Your task to perform on an android device: toggle translation in the chrome app Image 0: 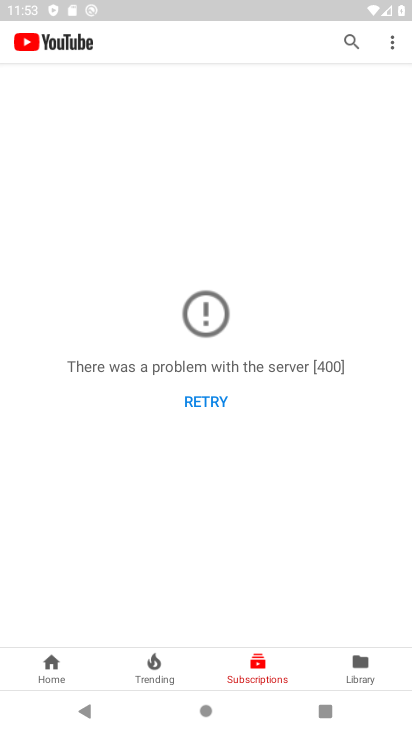
Step 0: press back button
Your task to perform on an android device: toggle translation in the chrome app Image 1: 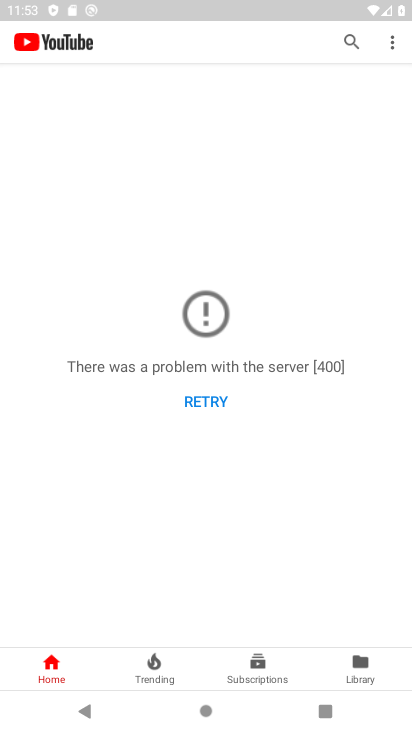
Step 1: press back button
Your task to perform on an android device: toggle translation in the chrome app Image 2: 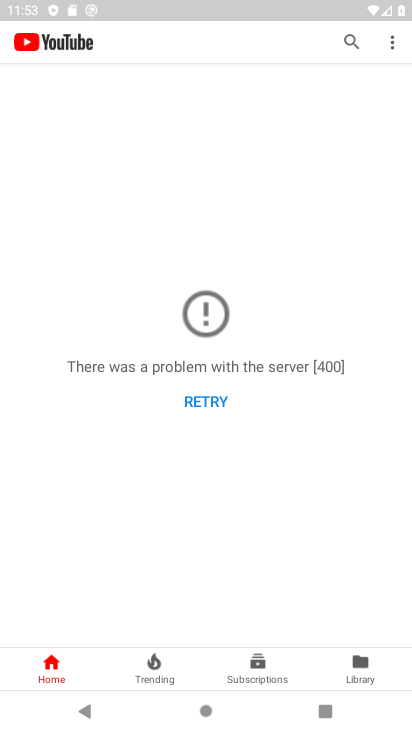
Step 2: press back button
Your task to perform on an android device: toggle translation in the chrome app Image 3: 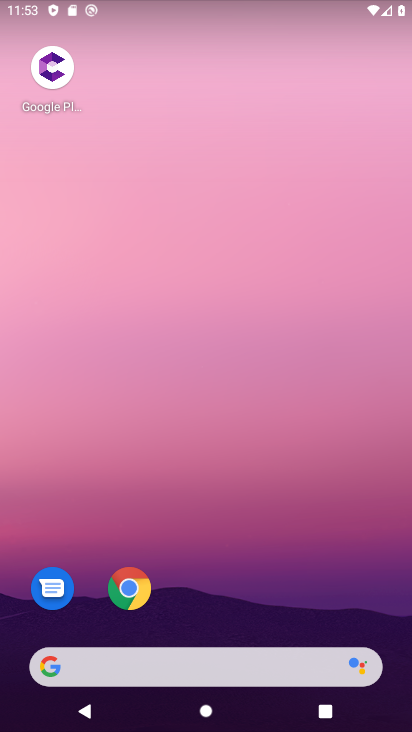
Step 3: drag from (252, 541) to (199, 117)
Your task to perform on an android device: toggle translation in the chrome app Image 4: 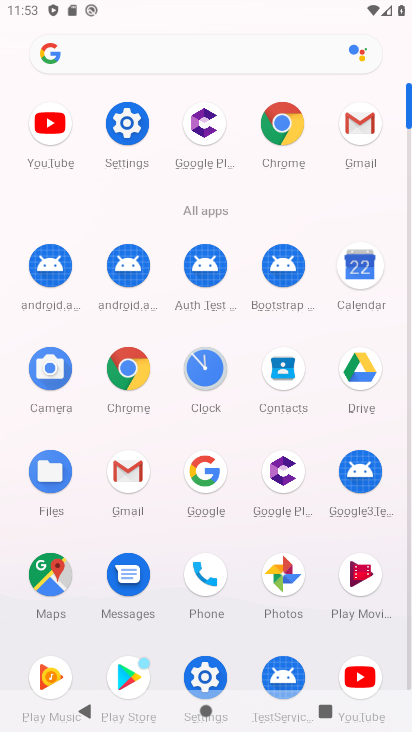
Step 4: click (284, 130)
Your task to perform on an android device: toggle translation in the chrome app Image 5: 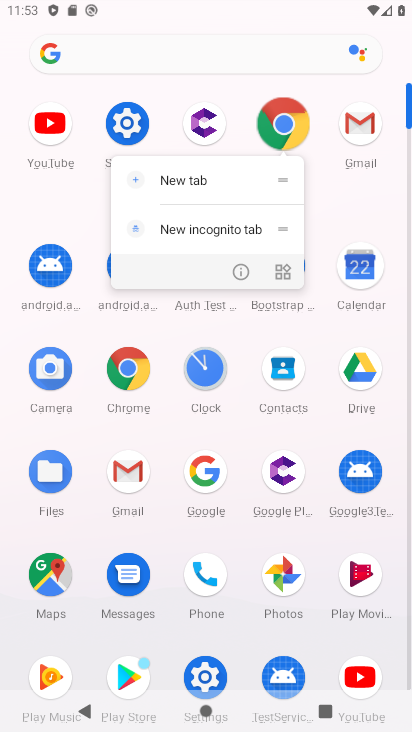
Step 5: click (284, 130)
Your task to perform on an android device: toggle translation in the chrome app Image 6: 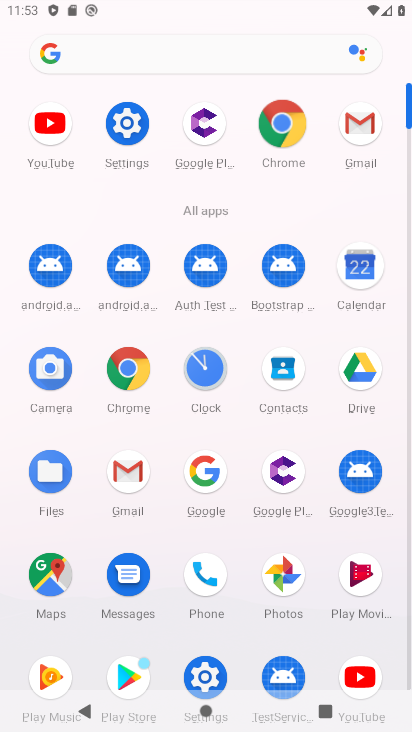
Step 6: click (284, 130)
Your task to perform on an android device: toggle translation in the chrome app Image 7: 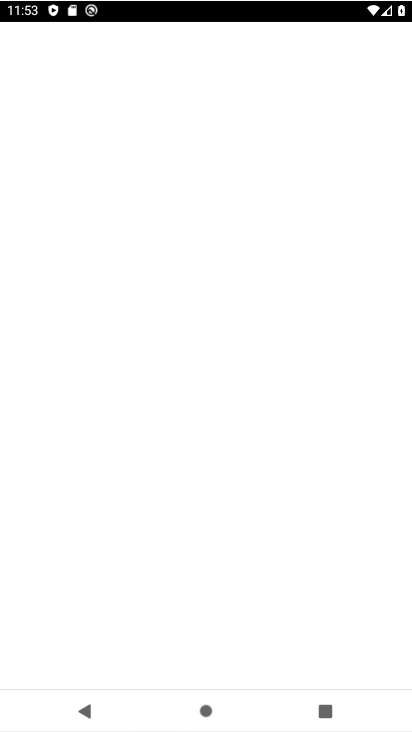
Step 7: click (284, 130)
Your task to perform on an android device: toggle translation in the chrome app Image 8: 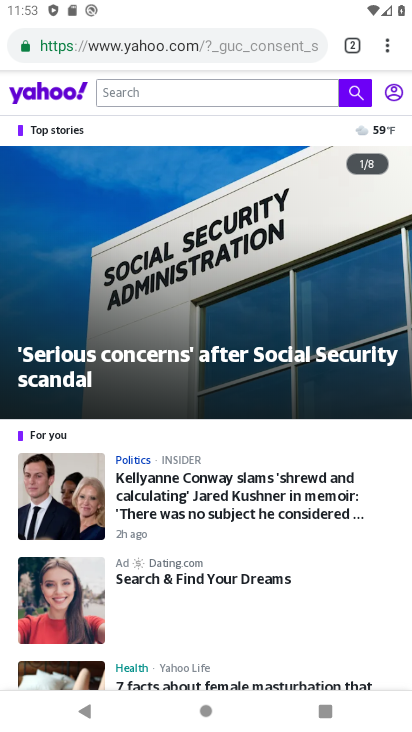
Step 8: drag from (388, 52) to (231, 545)
Your task to perform on an android device: toggle translation in the chrome app Image 9: 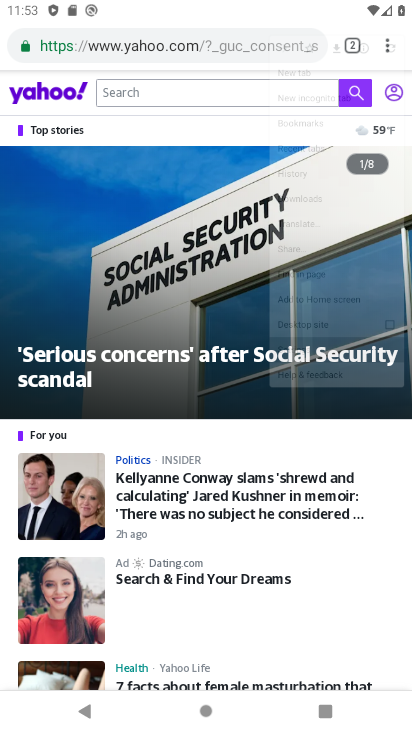
Step 9: click (235, 546)
Your task to perform on an android device: toggle translation in the chrome app Image 10: 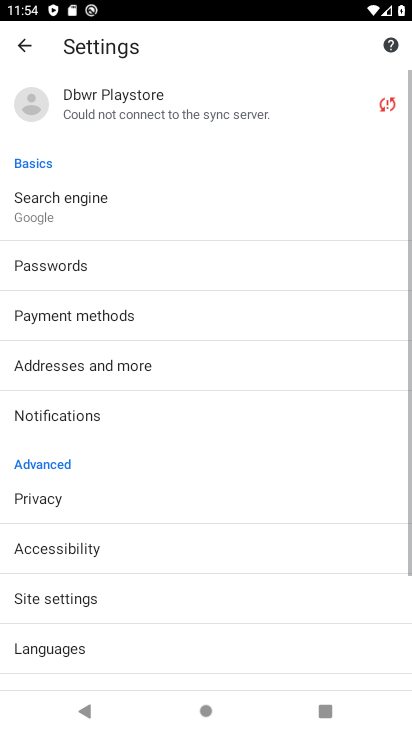
Step 10: drag from (143, 538) to (220, 87)
Your task to perform on an android device: toggle translation in the chrome app Image 11: 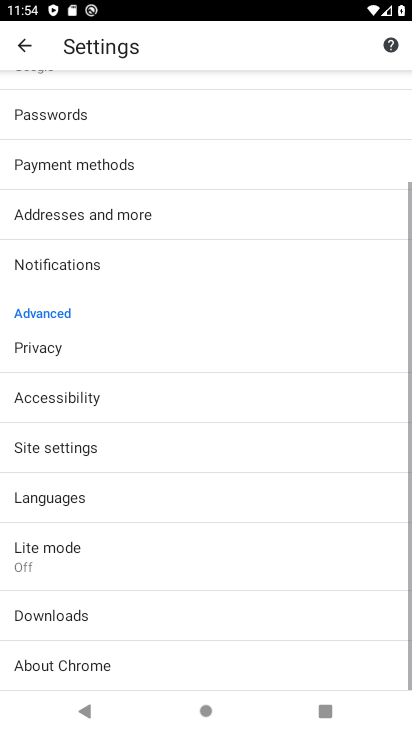
Step 11: drag from (258, 481) to (258, 137)
Your task to perform on an android device: toggle translation in the chrome app Image 12: 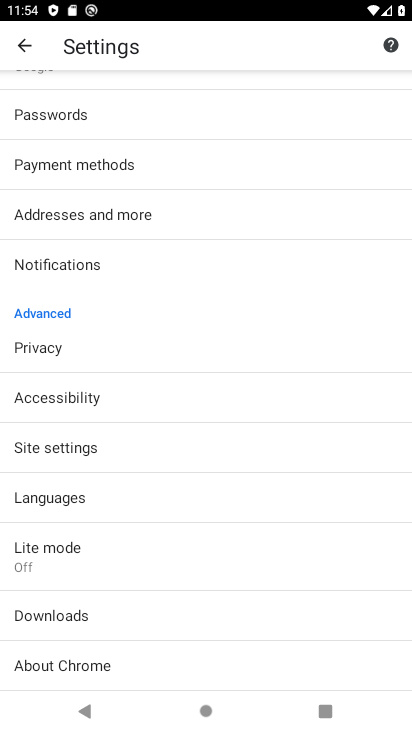
Step 12: click (38, 485)
Your task to perform on an android device: toggle translation in the chrome app Image 13: 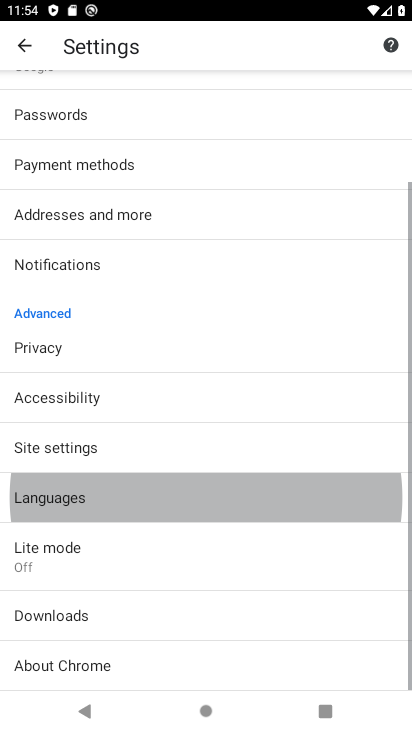
Step 13: click (39, 493)
Your task to perform on an android device: toggle translation in the chrome app Image 14: 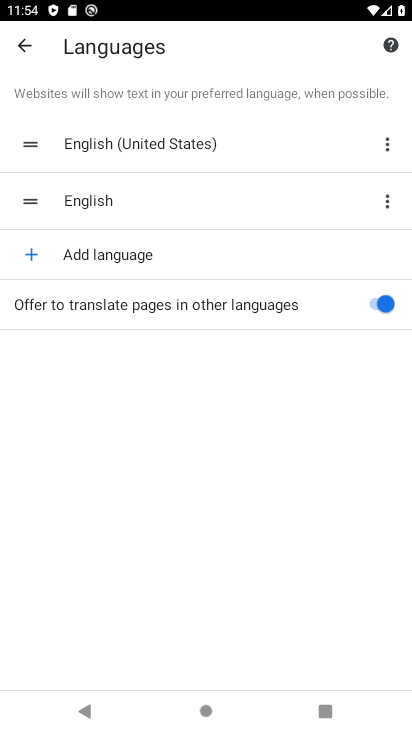
Step 14: click (380, 303)
Your task to perform on an android device: toggle translation in the chrome app Image 15: 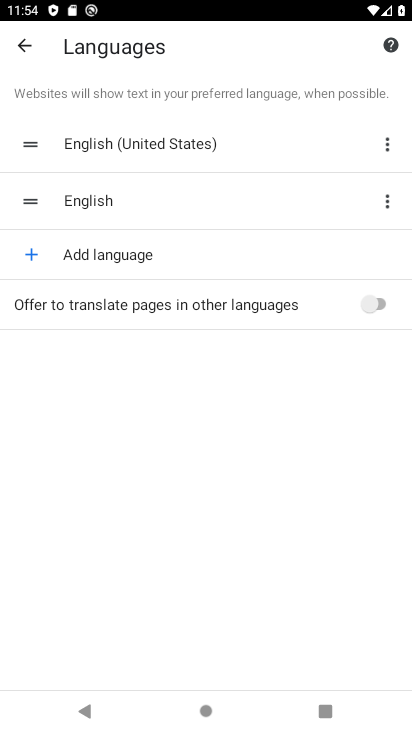
Step 15: task complete